Your task to perform on an android device: see creations saved in the google photos Image 0: 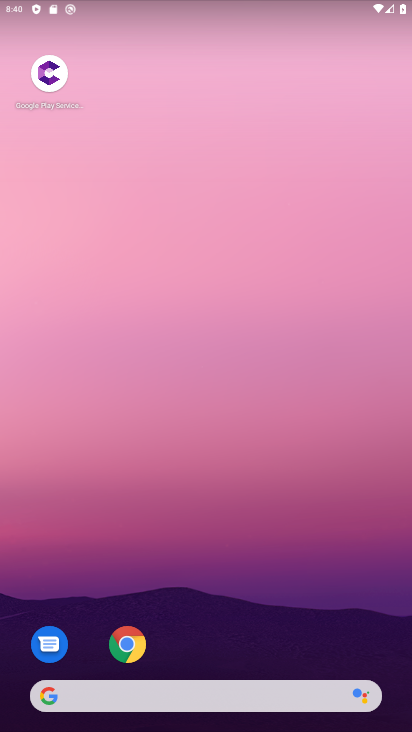
Step 0: drag from (194, 641) to (257, 174)
Your task to perform on an android device: see creations saved in the google photos Image 1: 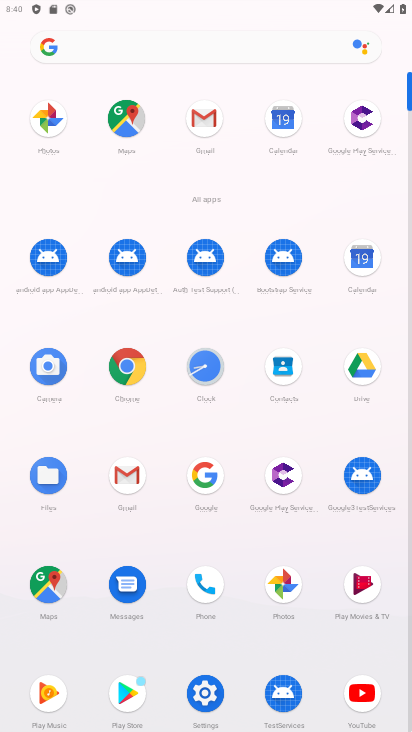
Step 1: click (282, 602)
Your task to perform on an android device: see creations saved in the google photos Image 2: 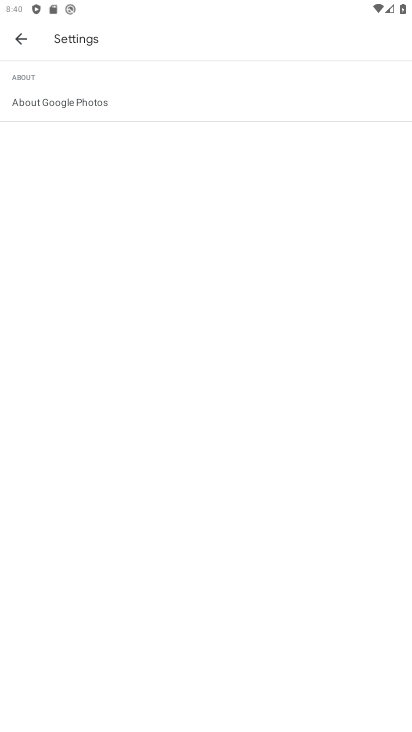
Step 2: click (24, 42)
Your task to perform on an android device: see creations saved in the google photos Image 3: 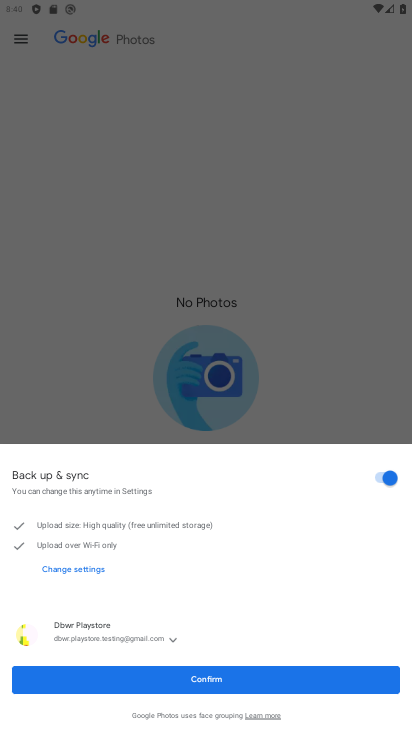
Step 3: click (244, 692)
Your task to perform on an android device: see creations saved in the google photos Image 4: 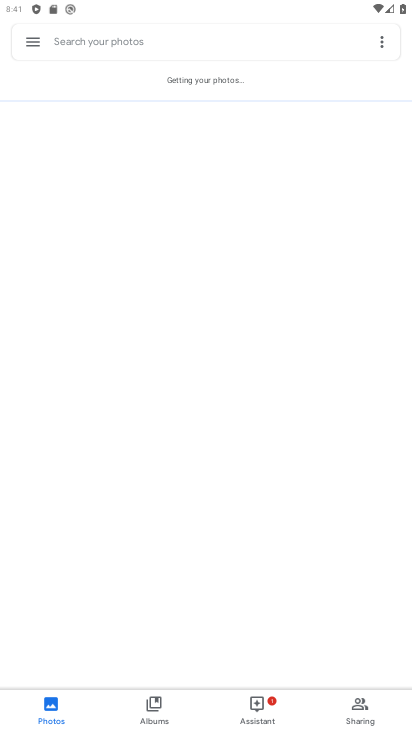
Step 4: drag from (176, 346) to (233, 117)
Your task to perform on an android device: see creations saved in the google photos Image 5: 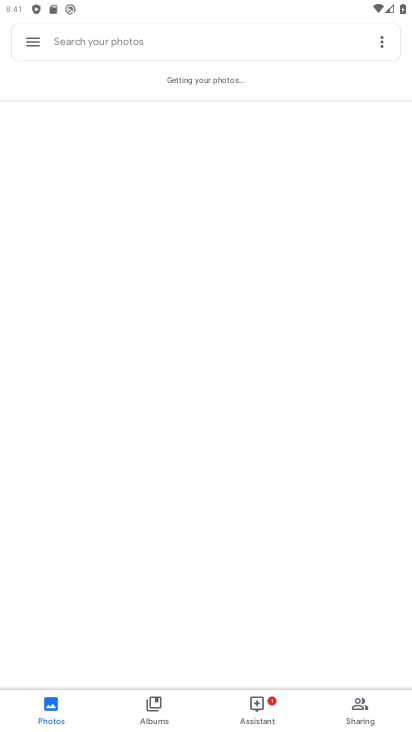
Step 5: drag from (212, 225) to (204, 420)
Your task to perform on an android device: see creations saved in the google photos Image 6: 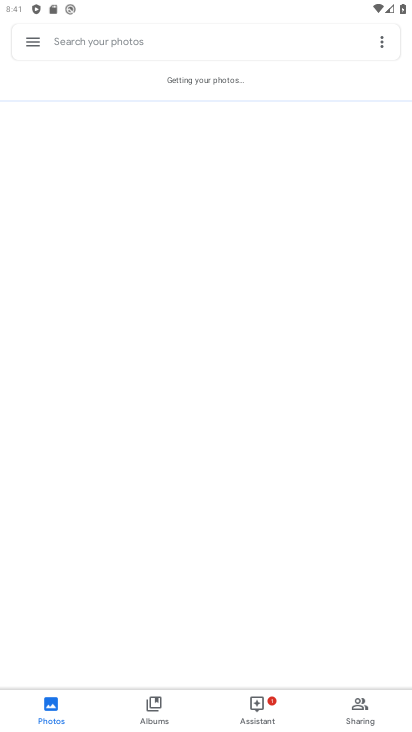
Step 6: click (210, 43)
Your task to perform on an android device: see creations saved in the google photos Image 7: 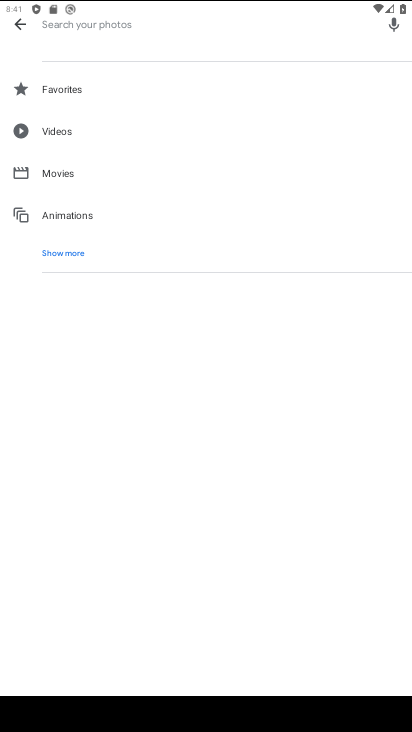
Step 7: type "creations"
Your task to perform on an android device: see creations saved in the google photos Image 8: 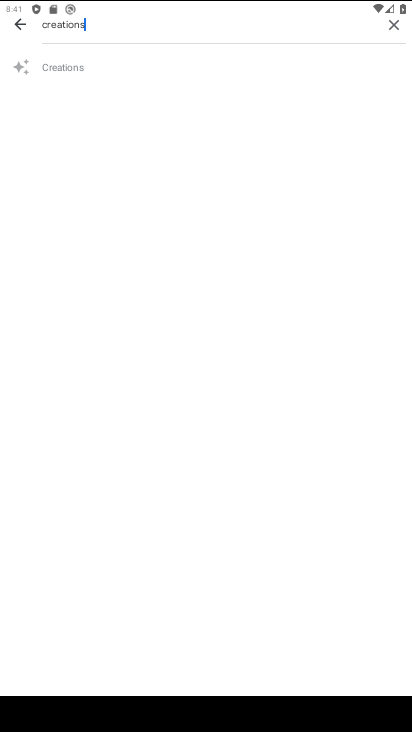
Step 8: click (92, 60)
Your task to perform on an android device: see creations saved in the google photos Image 9: 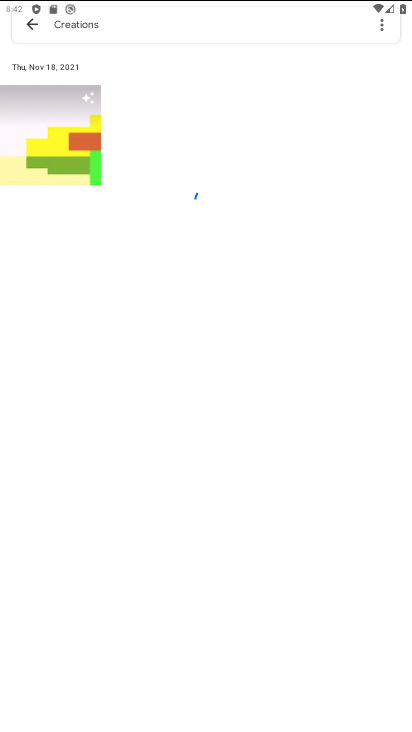
Step 9: click (48, 160)
Your task to perform on an android device: see creations saved in the google photos Image 10: 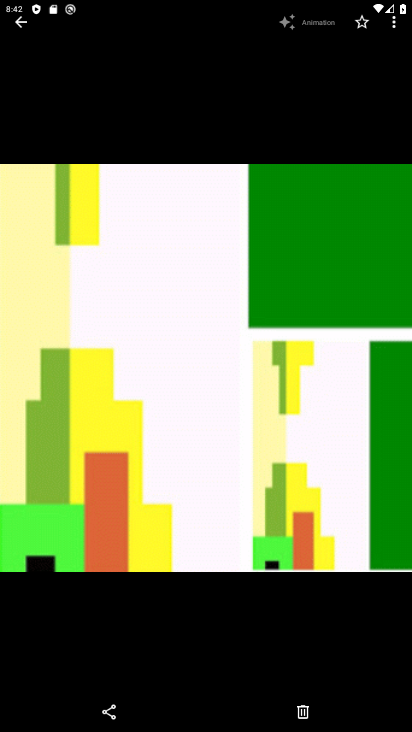
Step 10: task complete